Your task to perform on an android device: Open Reddit.com Image 0: 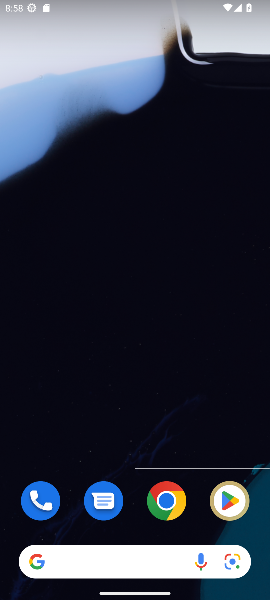
Step 0: click (163, 497)
Your task to perform on an android device: Open Reddit.com Image 1: 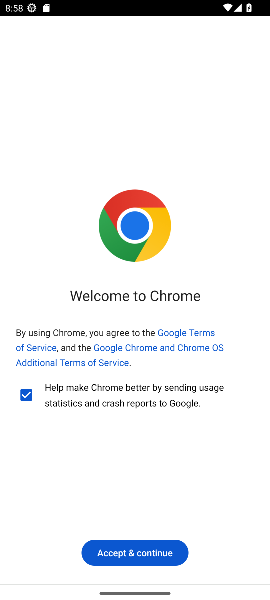
Step 1: click (133, 543)
Your task to perform on an android device: Open Reddit.com Image 2: 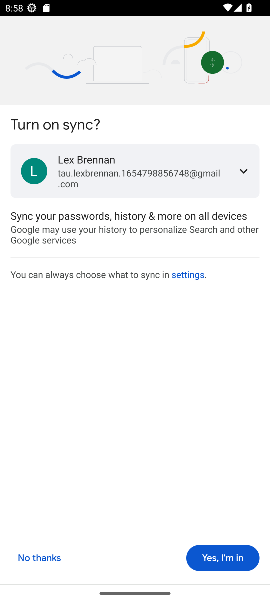
Step 2: click (211, 560)
Your task to perform on an android device: Open Reddit.com Image 3: 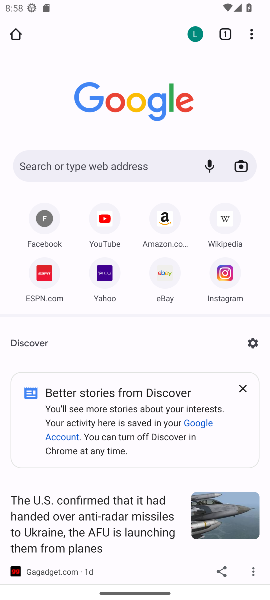
Step 3: click (108, 157)
Your task to perform on an android device: Open Reddit.com Image 4: 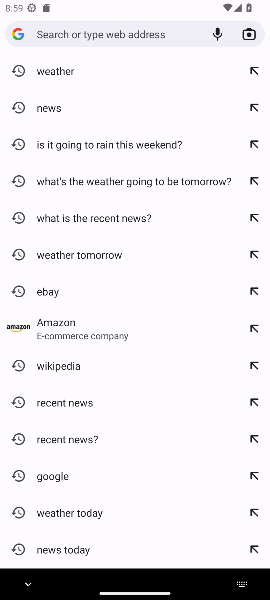
Step 4: type "www.reddit.com"
Your task to perform on an android device: Open Reddit.com Image 5: 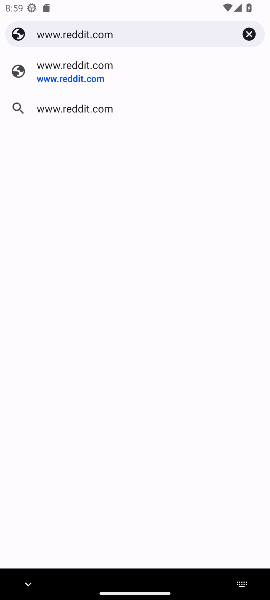
Step 5: click (78, 70)
Your task to perform on an android device: Open Reddit.com Image 6: 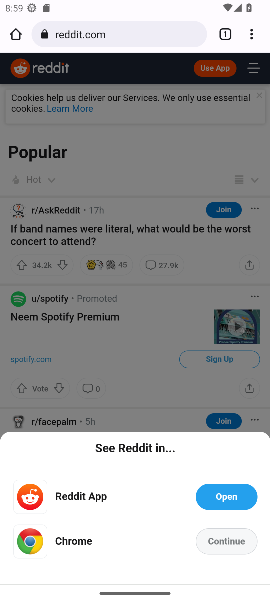
Step 6: task complete